Your task to perform on an android device: check out phone information Image 0: 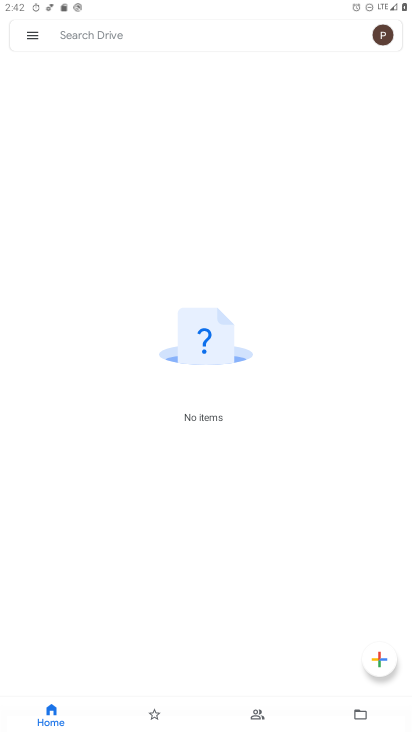
Step 0: press home button
Your task to perform on an android device: check out phone information Image 1: 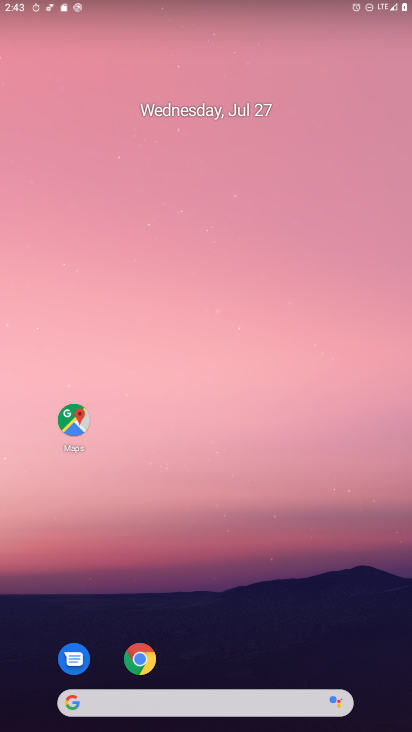
Step 1: drag from (271, 619) to (198, 44)
Your task to perform on an android device: check out phone information Image 2: 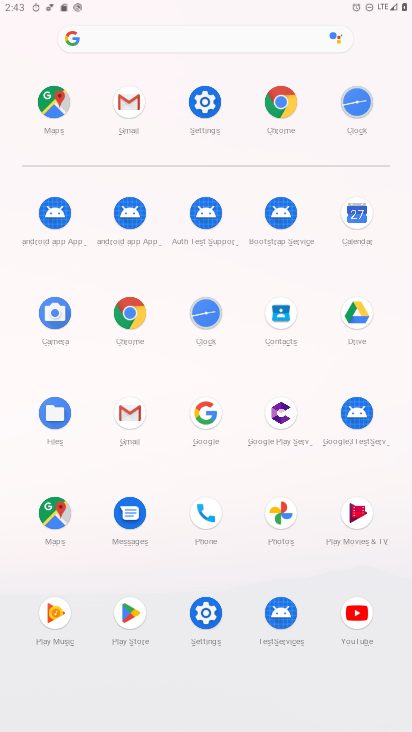
Step 2: click (208, 512)
Your task to perform on an android device: check out phone information Image 3: 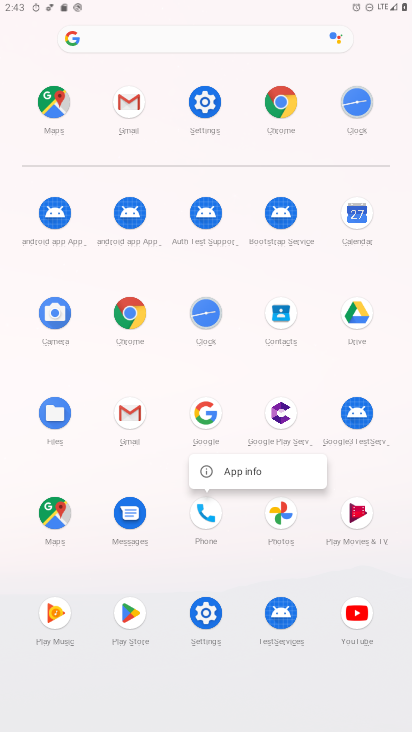
Step 3: click (227, 466)
Your task to perform on an android device: check out phone information Image 4: 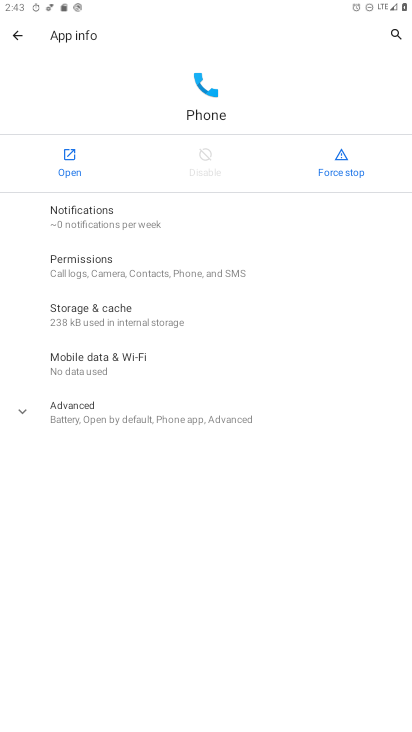
Step 4: task complete